Your task to perform on an android device: change keyboard looks Image 0: 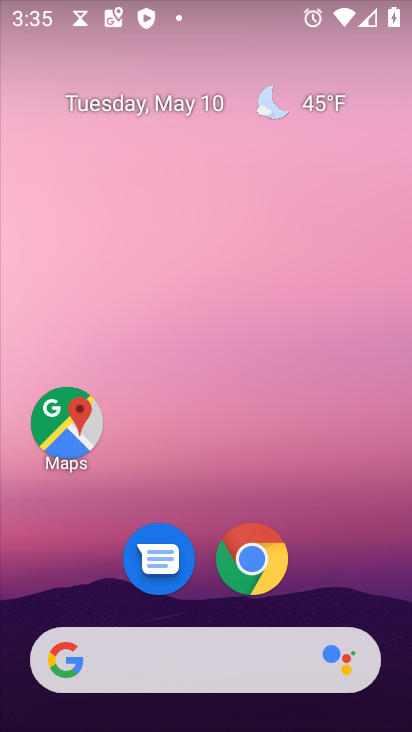
Step 0: drag from (361, 560) to (202, 91)
Your task to perform on an android device: change keyboard looks Image 1: 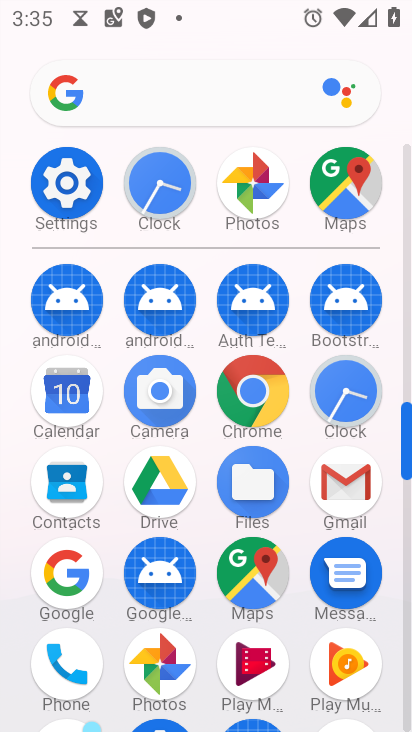
Step 1: click (80, 188)
Your task to perform on an android device: change keyboard looks Image 2: 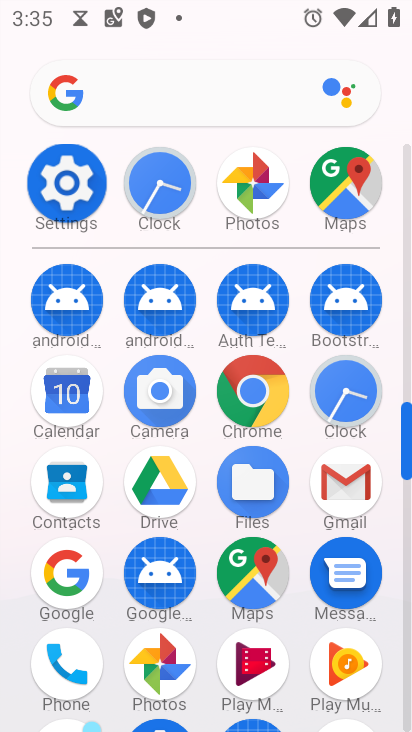
Step 2: click (43, 156)
Your task to perform on an android device: change keyboard looks Image 3: 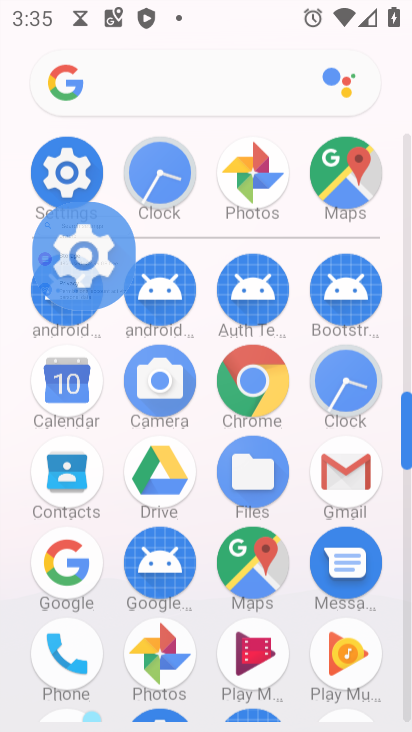
Step 3: click (58, 173)
Your task to perform on an android device: change keyboard looks Image 4: 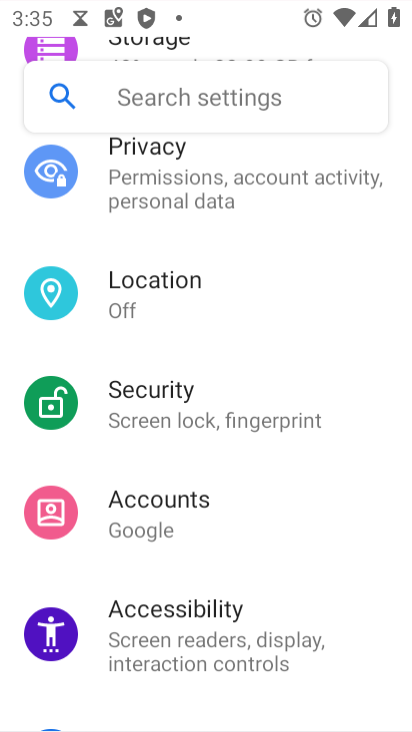
Step 4: click (61, 177)
Your task to perform on an android device: change keyboard looks Image 5: 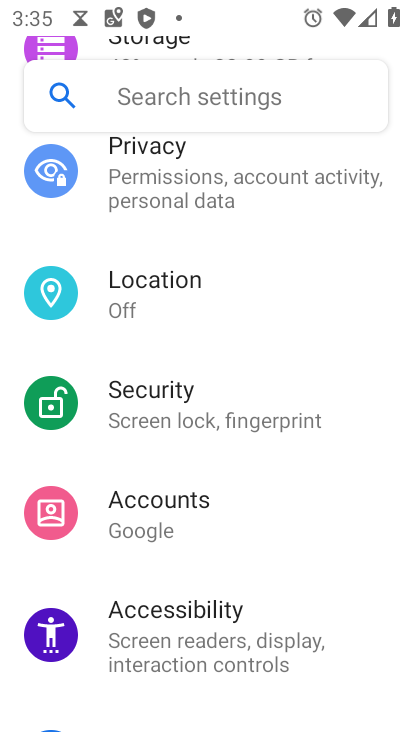
Step 5: click (61, 177)
Your task to perform on an android device: change keyboard looks Image 6: 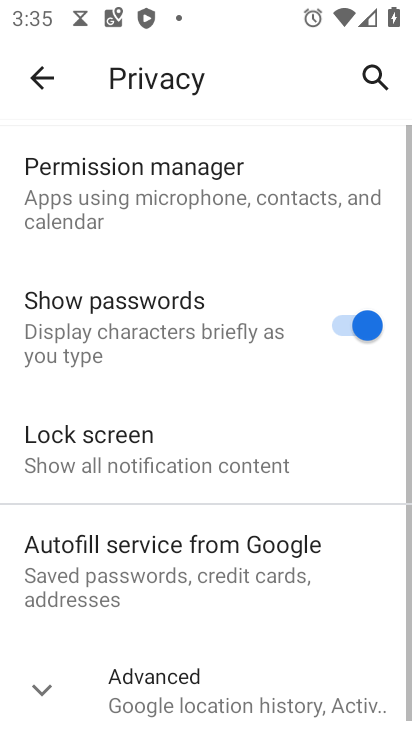
Step 6: click (38, 73)
Your task to perform on an android device: change keyboard looks Image 7: 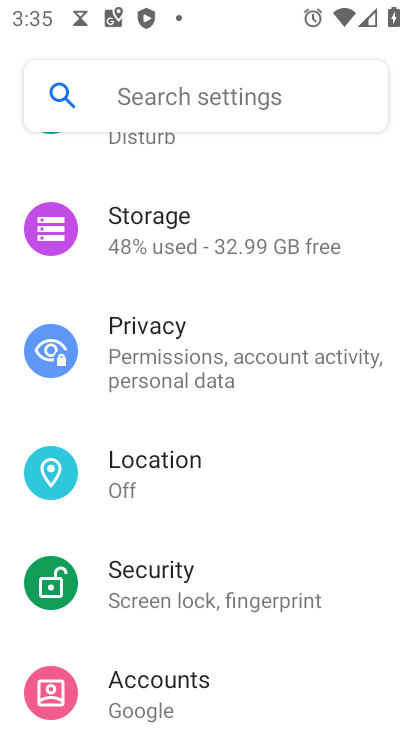
Step 7: drag from (208, 637) to (222, 252)
Your task to perform on an android device: change keyboard looks Image 8: 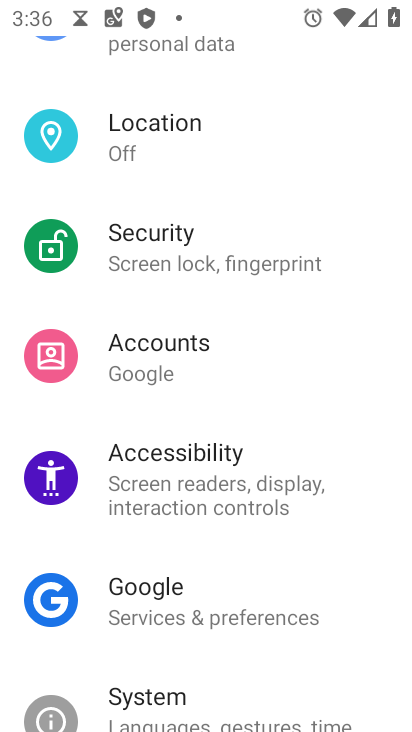
Step 8: drag from (200, 557) to (186, 51)
Your task to perform on an android device: change keyboard looks Image 9: 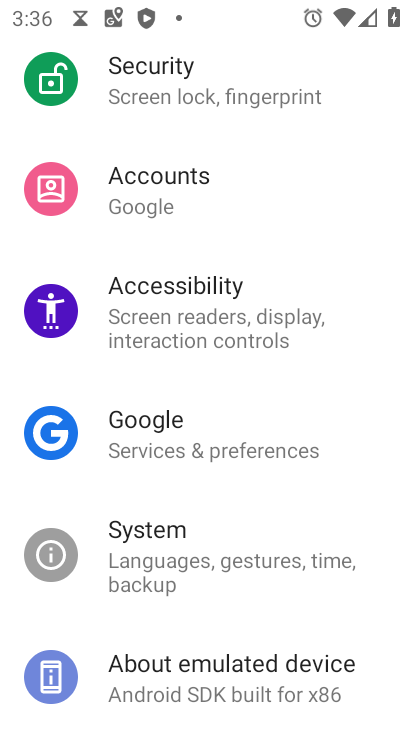
Step 9: drag from (156, 558) to (173, 690)
Your task to perform on an android device: change keyboard looks Image 10: 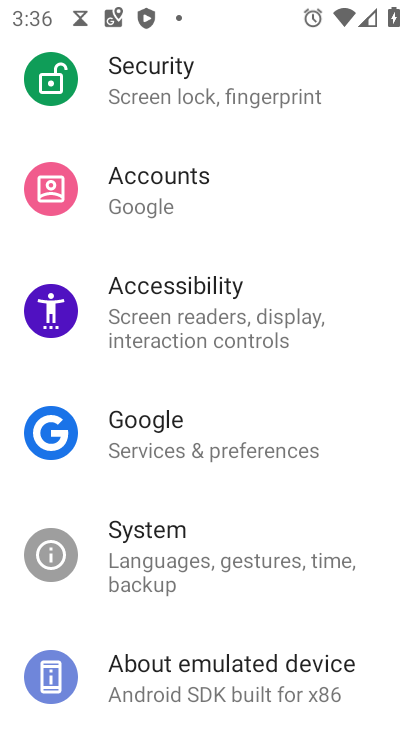
Step 10: click (145, 562)
Your task to perform on an android device: change keyboard looks Image 11: 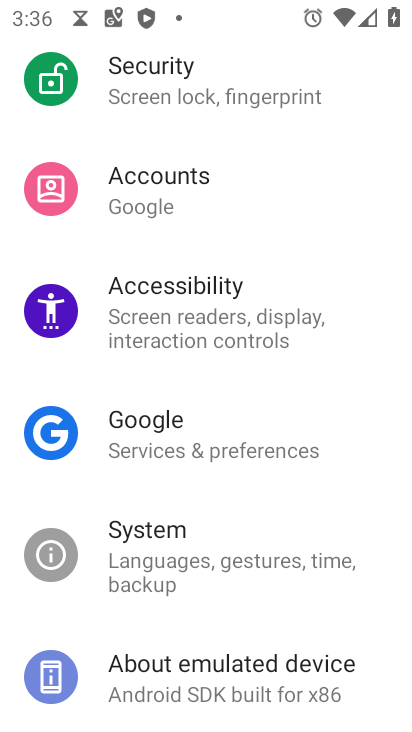
Step 11: click (145, 562)
Your task to perform on an android device: change keyboard looks Image 12: 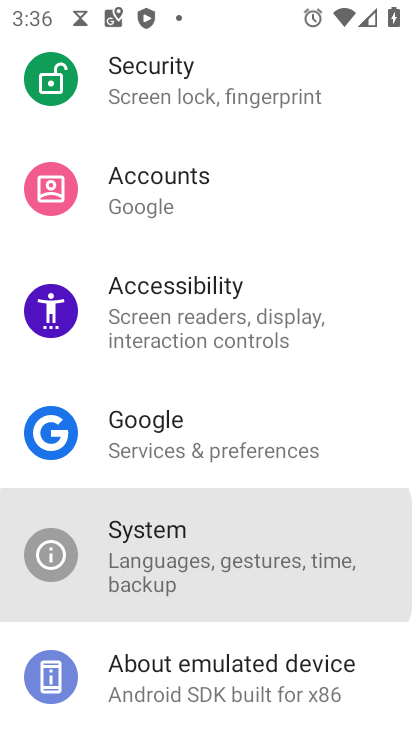
Step 12: click (146, 561)
Your task to perform on an android device: change keyboard looks Image 13: 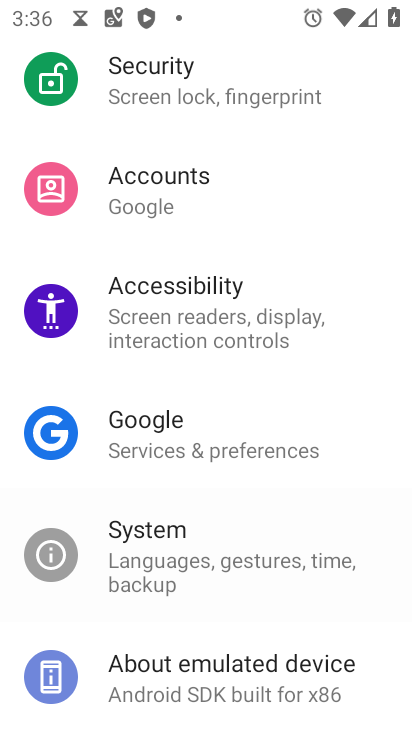
Step 13: click (149, 560)
Your task to perform on an android device: change keyboard looks Image 14: 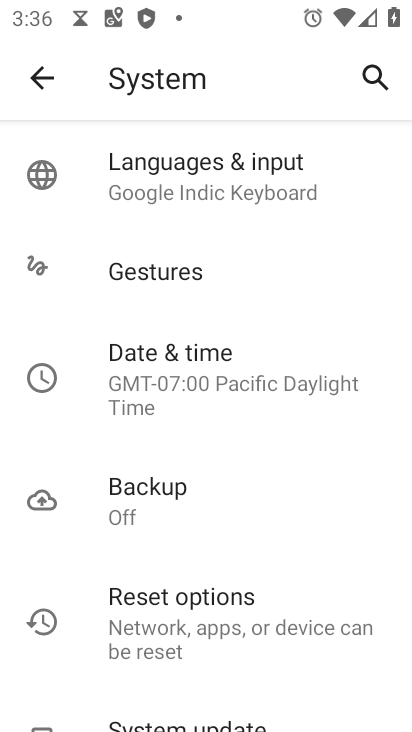
Step 14: click (184, 178)
Your task to perform on an android device: change keyboard looks Image 15: 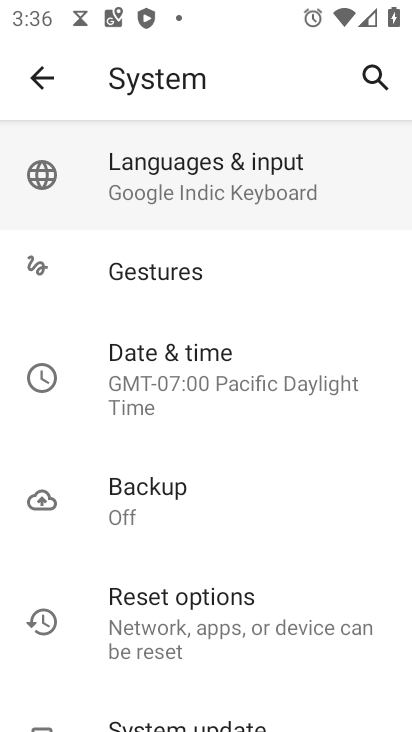
Step 15: click (185, 179)
Your task to perform on an android device: change keyboard looks Image 16: 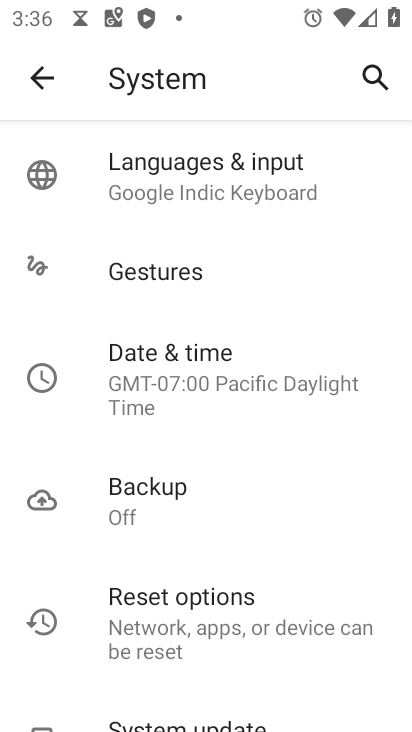
Step 16: click (185, 179)
Your task to perform on an android device: change keyboard looks Image 17: 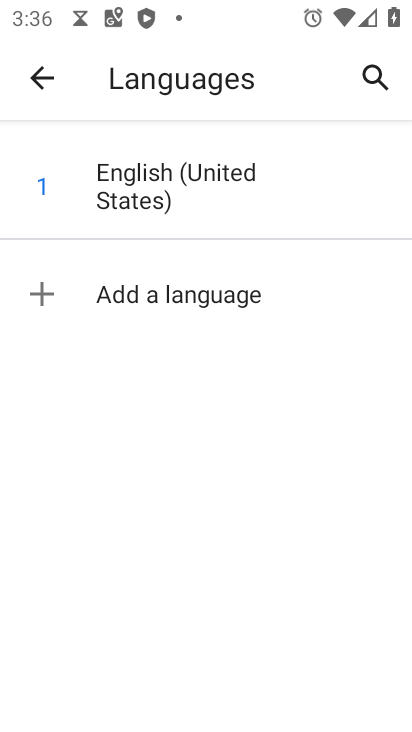
Step 17: click (30, 84)
Your task to perform on an android device: change keyboard looks Image 18: 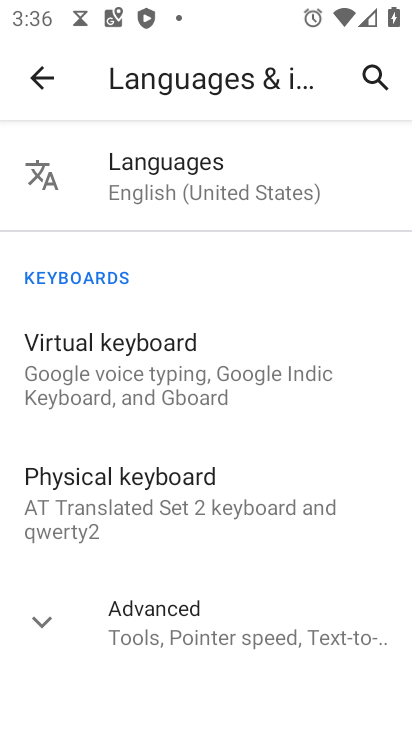
Step 18: click (118, 381)
Your task to perform on an android device: change keyboard looks Image 19: 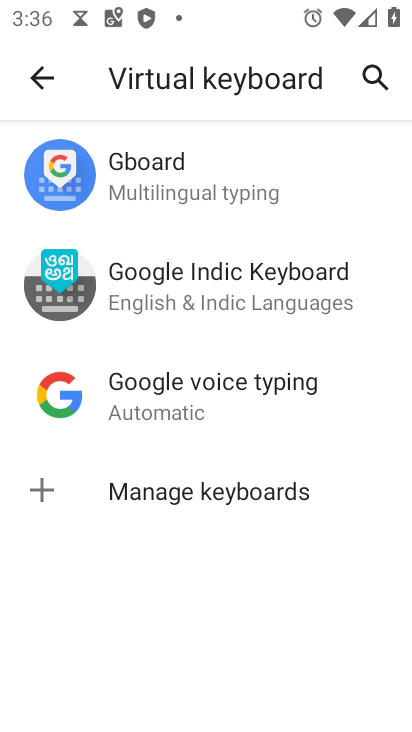
Step 19: click (160, 188)
Your task to perform on an android device: change keyboard looks Image 20: 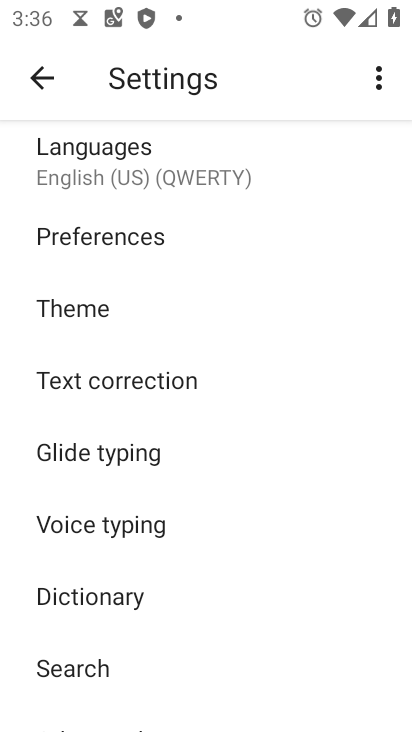
Step 20: click (78, 314)
Your task to perform on an android device: change keyboard looks Image 21: 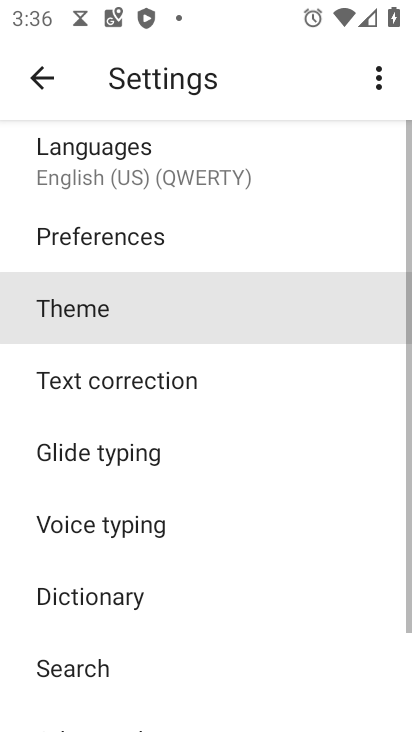
Step 21: click (78, 314)
Your task to perform on an android device: change keyboard looks Image 22: 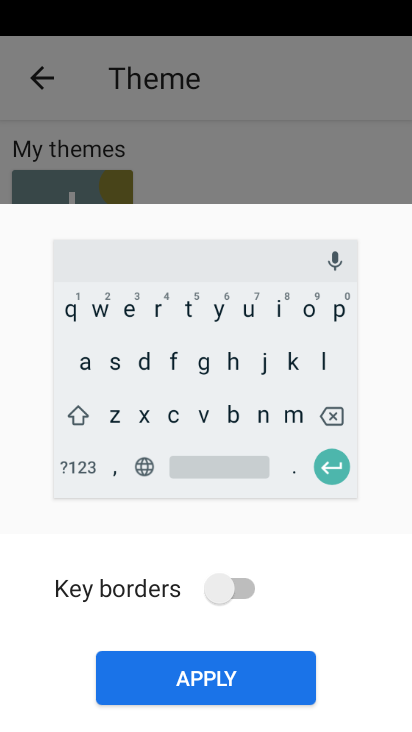
Step 22: click (208, 674)
Your task to perform on an android device: change keyboard looks Image 23: 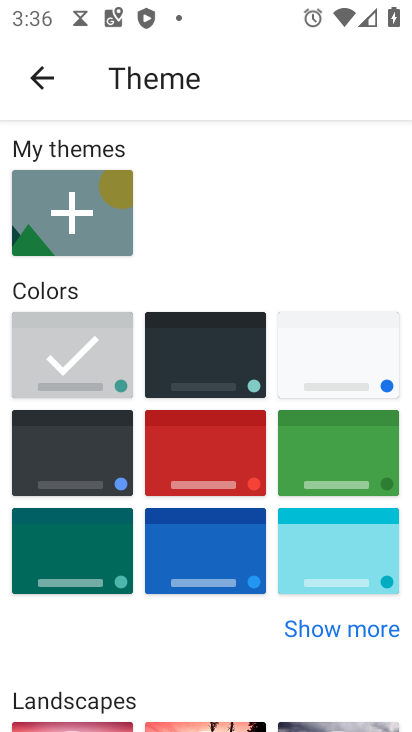
Step 23: click (208, 674)
Your task to perform on an android device: change keyboard looks Image 24: 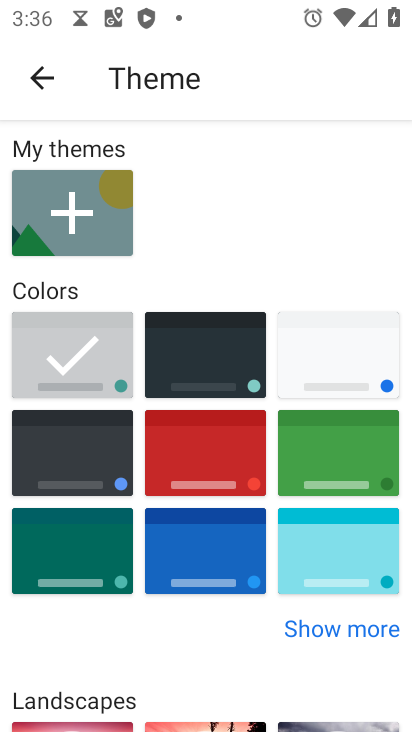
Step 24: click (208, 674)
Your task to perform on an android device: change keyboard looks Image 25: 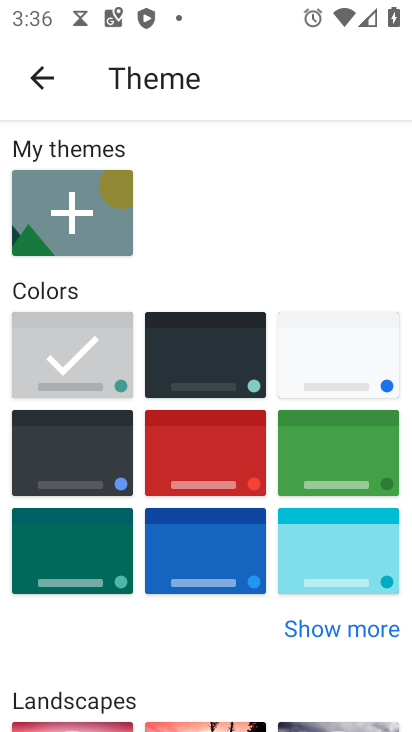
Step 25: click (212, 673)
Your task to perform on an android device: change keyboard looks Image 26: 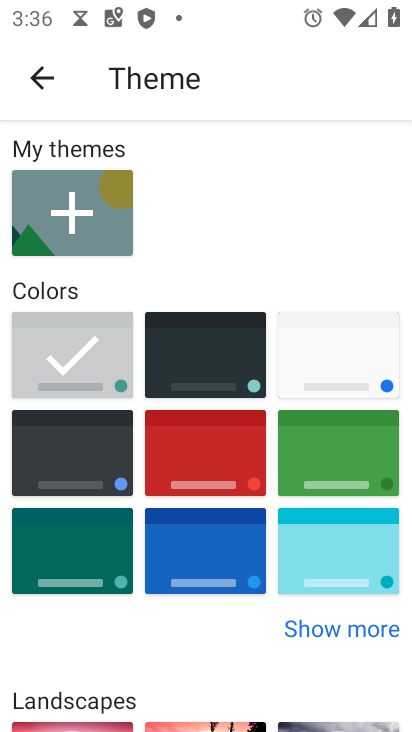
Step 26: task complete